Your task to perform on an android device: Check the weather Image 0: 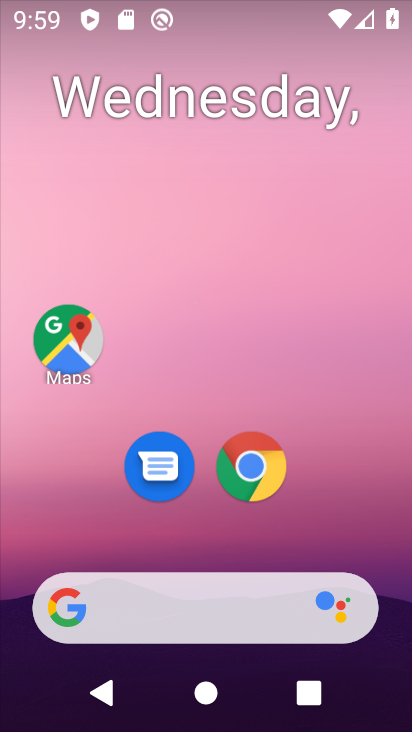
Step 0: drag from (21, 233) to (390, 230)
Your task to perform on an android device: Check the weather Image 1: 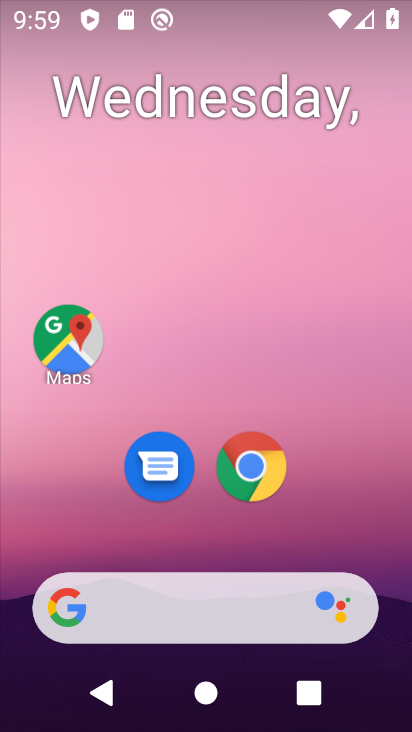
Step 1: drag from (7, 265) to (365, 285)
Your task to perform on an android device: Check the weather Image 2: 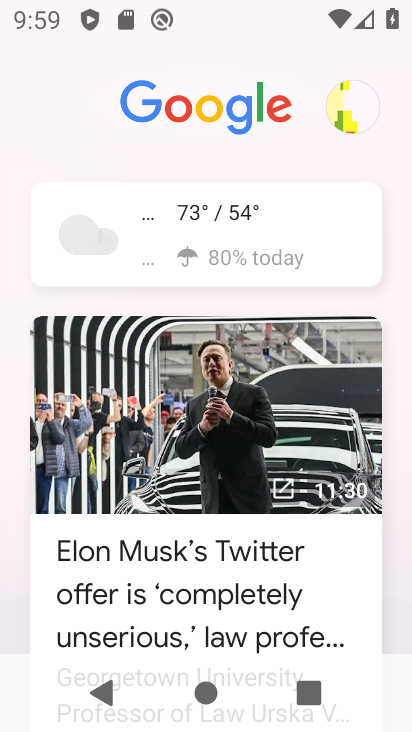
Step 2: click (246, 236)
Your task to perform on an android device: Check the weather Image 3: 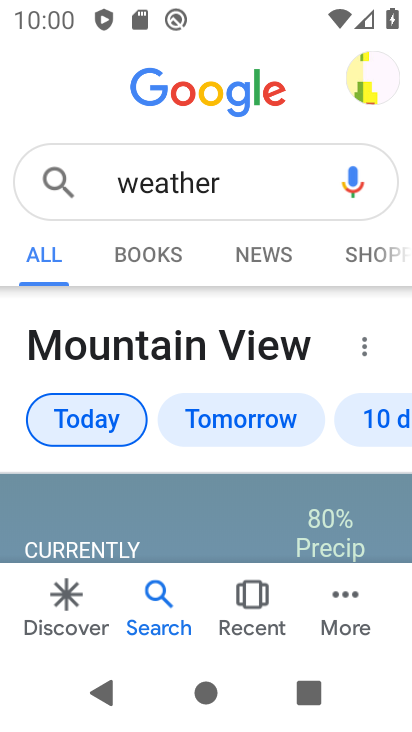
Step 3: task complete